Your task to perform on an android device: allow cookies in the chrome app Image 0: 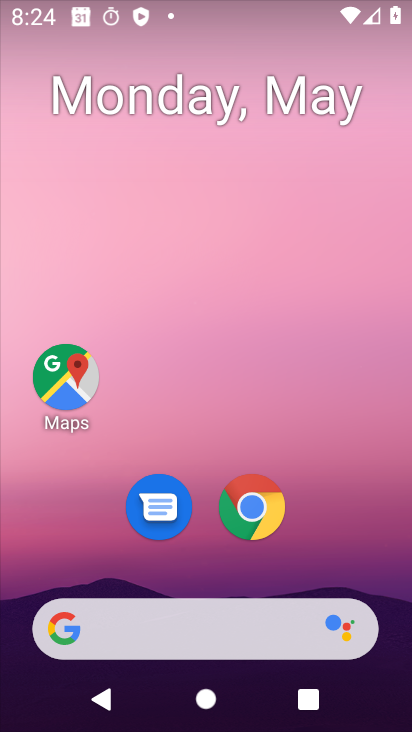
Step 0: click (265, 508)
Your task to perform on an android device: allow cookies in the chrome app Image 1: 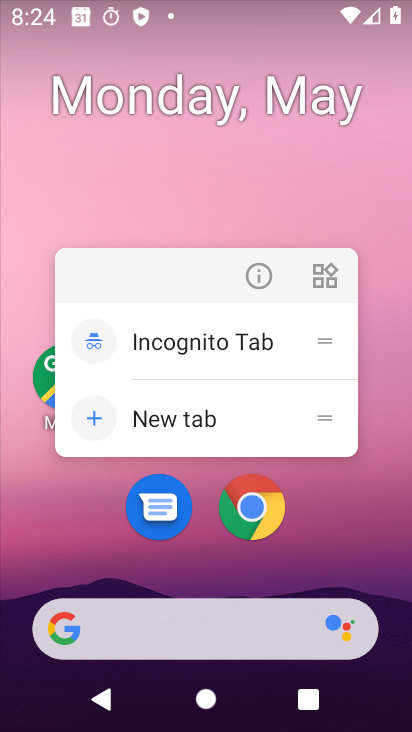
Step 1: click (267, 503)
Your task to perform on an android device: allow cookies in the chrome app Image 2: 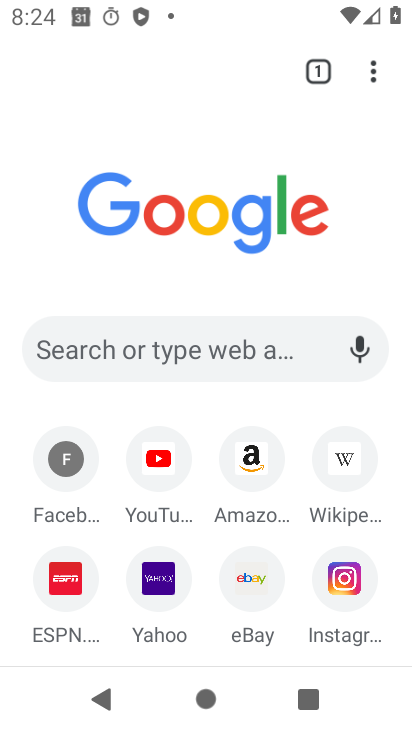
Step 2: click (378, 75)
Your task to perform on an android device: allow cookies in the chrome app Image 3: 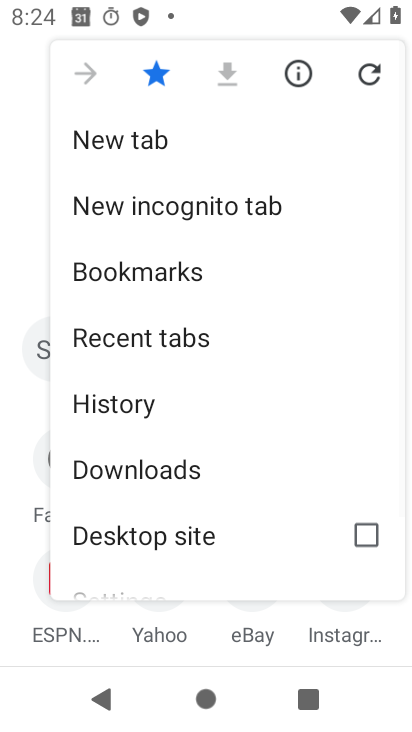
Step 3: drag from (163, 490) to (224, 210)
Your task to perform on an android device: allow cookies in the chrome app Image 4: 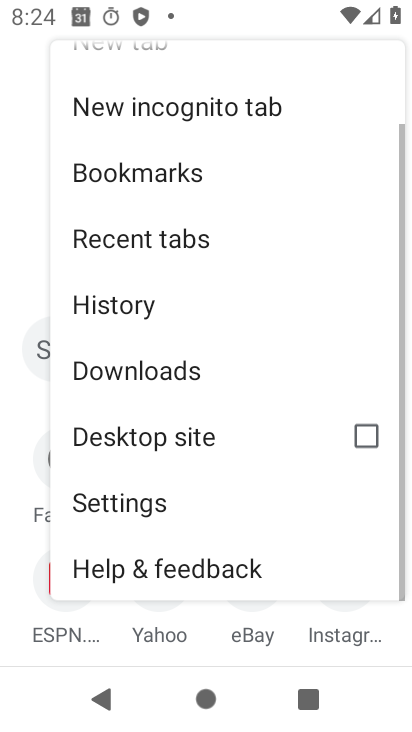
Step 4: click (124, 498)
Your task to perform on an android device: allow cookies in the chrome app Image 5: 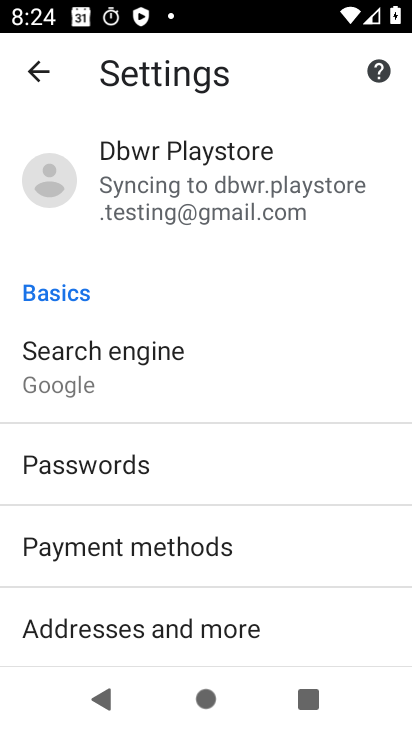
Step 5: drag from (177, 504) to (229, 220)
Your task to perform on an android device: allow cookies in the chrome app Image 6: 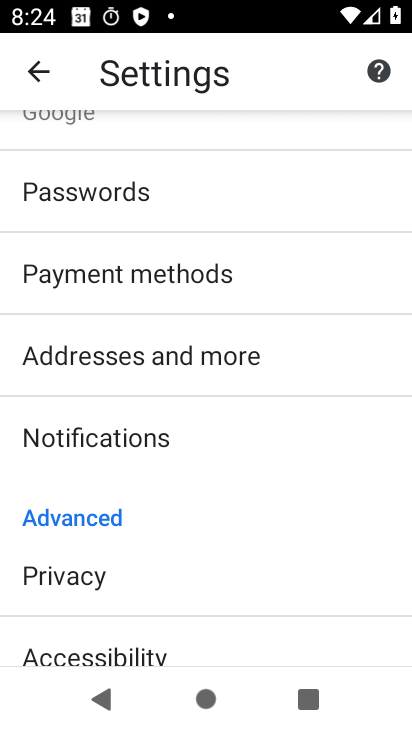
Step 6: drag from (143, 592) to (208, 265)
Your task to perform on an android device: allow cookies in the chrome app Image 7: 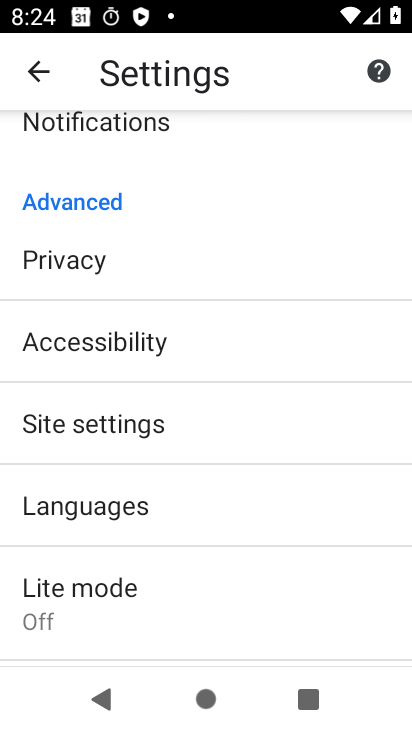
Step 7: click (132, 430)
Your task to perform on an android device: allow cookies in the chrome app Image 8: 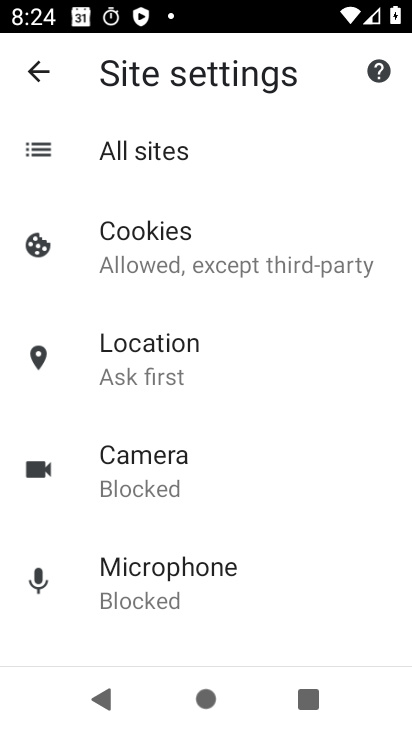
Step 8: click (198, 261)
Your task to perform on an android device: allow cookies in the chrome app Image 9: 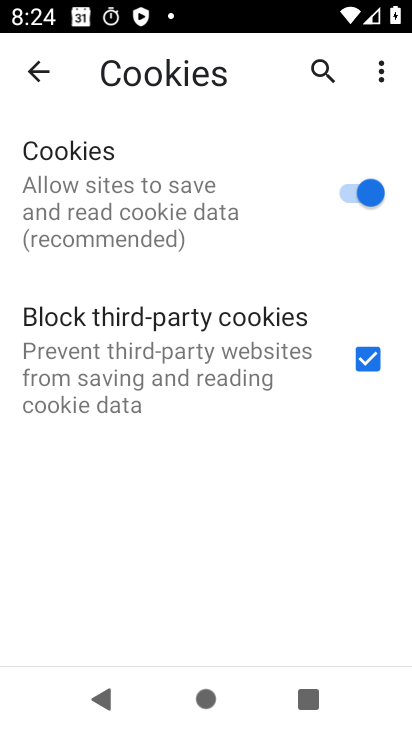
Step 9: task complete